Your task to perform on an android device: Turn off the flashlight Image 0: 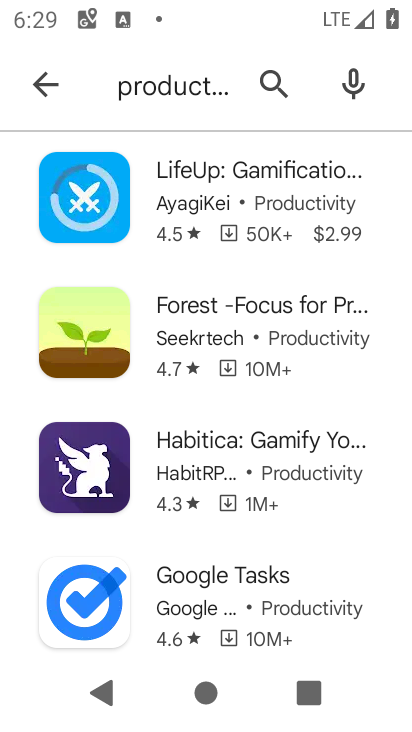
Step 0: press home button
Your task to perform on an android device: Turn off the flashlight Image 1: 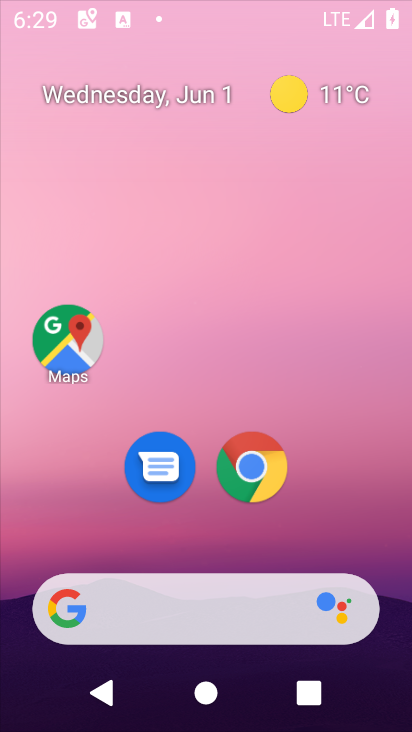
Step 1: task complete